Your task to perform on an android device: stop showing notifications on the lock screen Image 0: 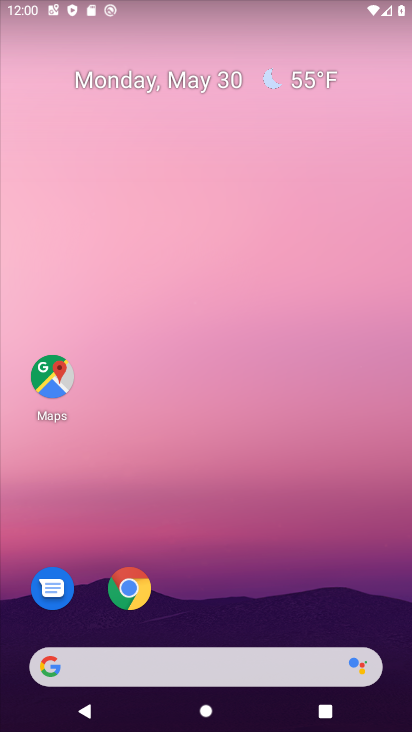
Step 0: drag from (270, 527) to (16, 169)
Your task to perform on an android device: stop showing notifications on the lock screen Image 1: 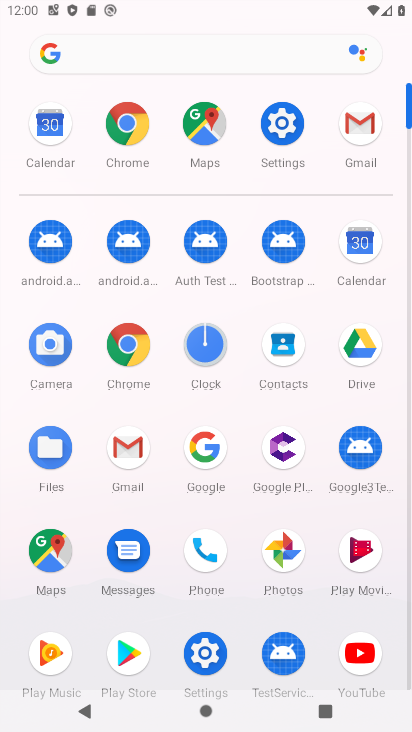
Step 1: click (276, 91)
Your task to perform on an android device: stop showing notifications on the lock screen Image 2: 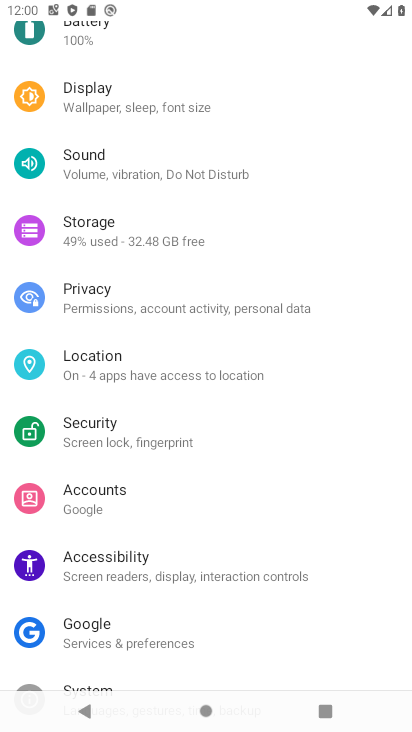
Step 2: drag from (171, 176) to (196, 654)
Your task to perform on an android device: stop showing notifications on the lock screen Image 3: 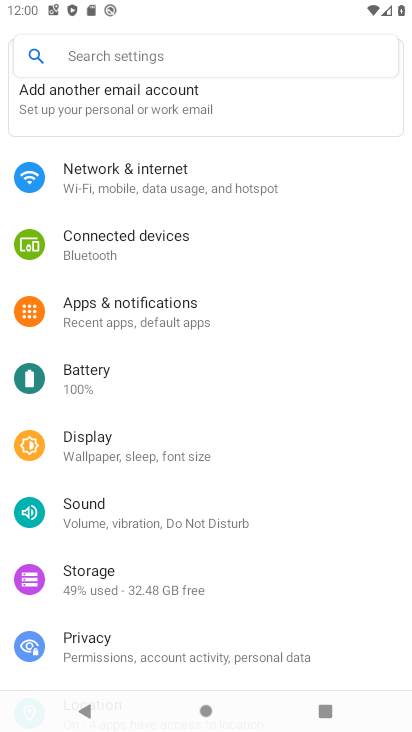
Step 3: click (160, 322)
Your task to perform on an android device: stop showing notifications on the lock screen Image 4: 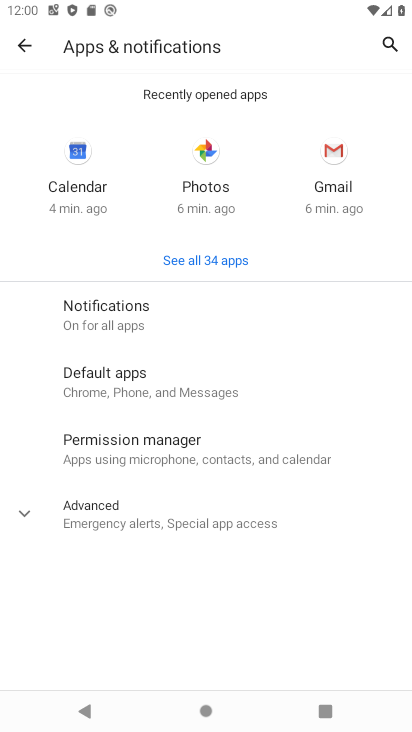
Step 4: click (134, 307)
Your task to perform on an android device: stop showing notifications on the lock screen Image 5: 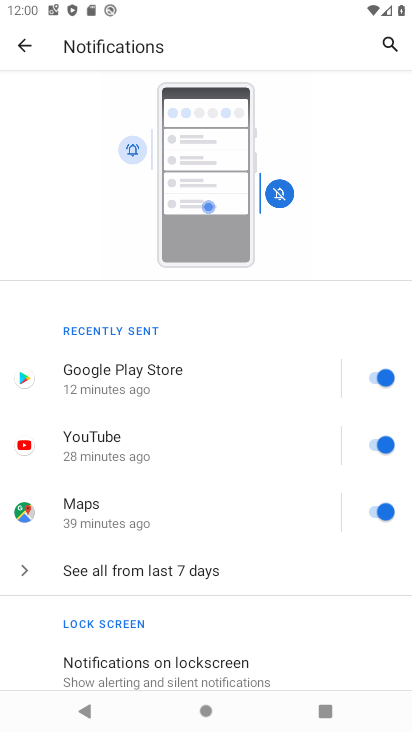
Step 5: click (148, 670)
Your task to perform on an android device: stop showing notifications on the lock screen Image 6: 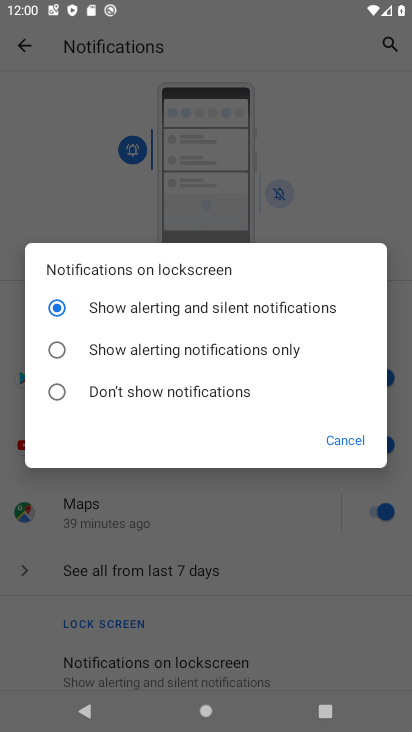
Step 6: click (67, 392)
Your task to perform on an android device: stop showing notifications on the lock screen Image 7: 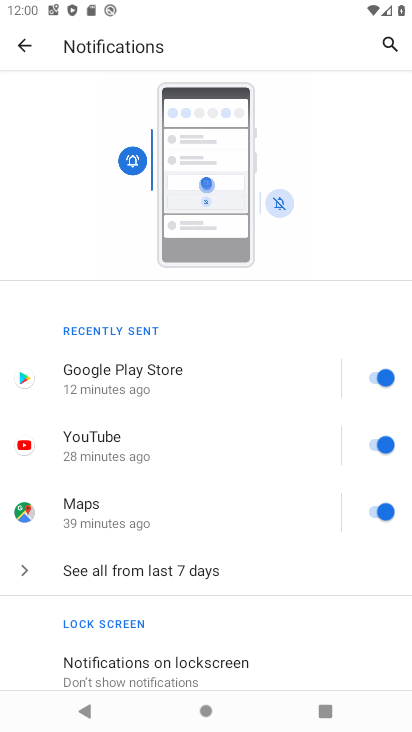
Step 7: task complete